Your task to perform on an android device: add a contact Image 0: 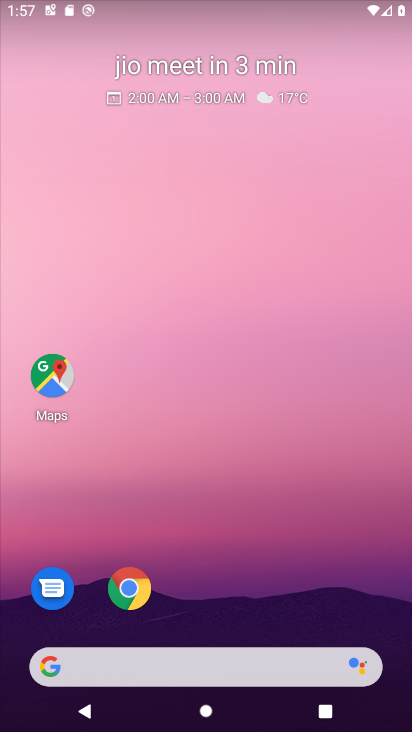
Step 0: drag from (206, 483) to (229, 8)
Your task to perform on an android device: add a contact Image 1: 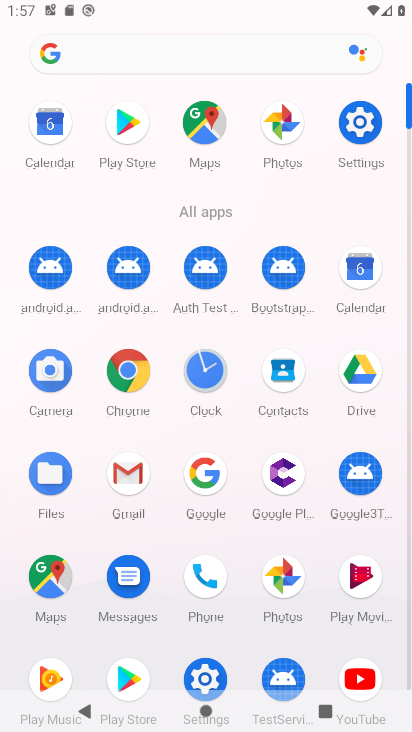
Step 1: click (279, 378)
Your task to perform on an android device: add a contact Image 2: 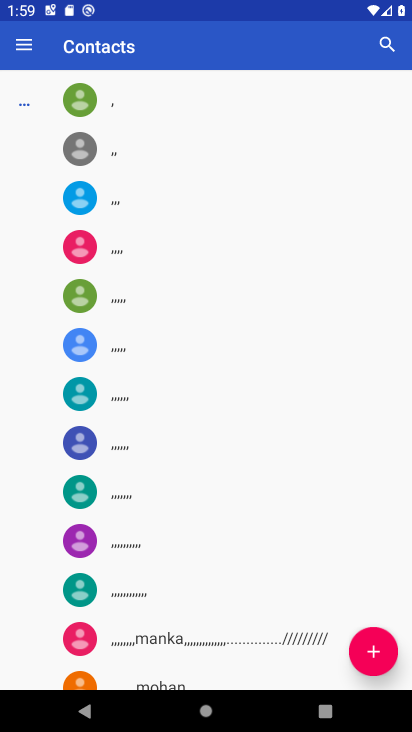
Step 2: click (381, 646)
Your task to perform on an android device: add a contact Image 3: 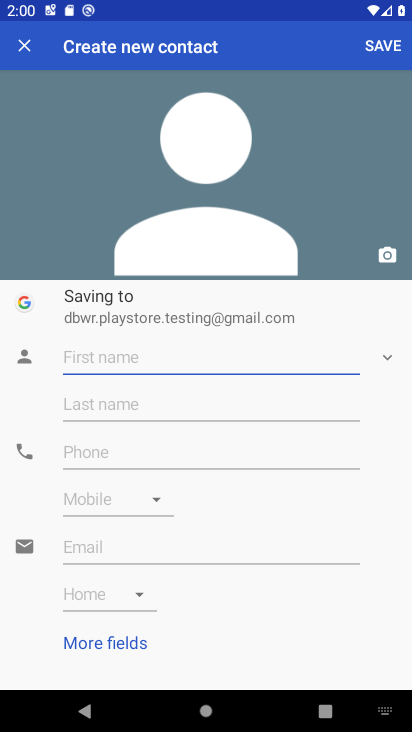
Step 3: type "bkhb"
Your task to perform on an android device: add a contact Image 4: 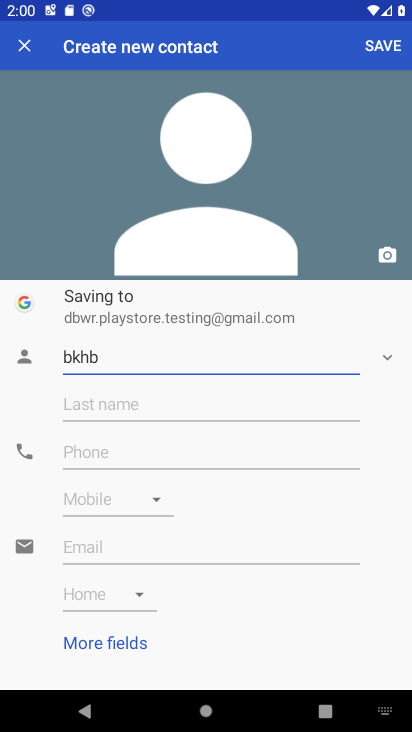
Step 4: click (215, 458)
Your task to perform on an android device: add a contact Image 5: 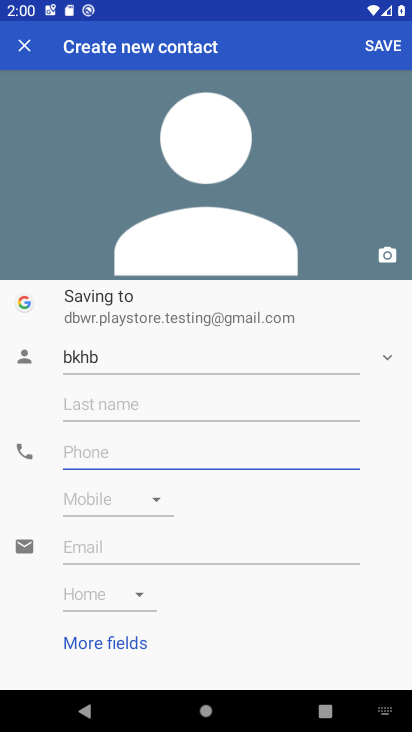
Step 5: type "899"
Your task to perform on an android device: add a contact Image 6: 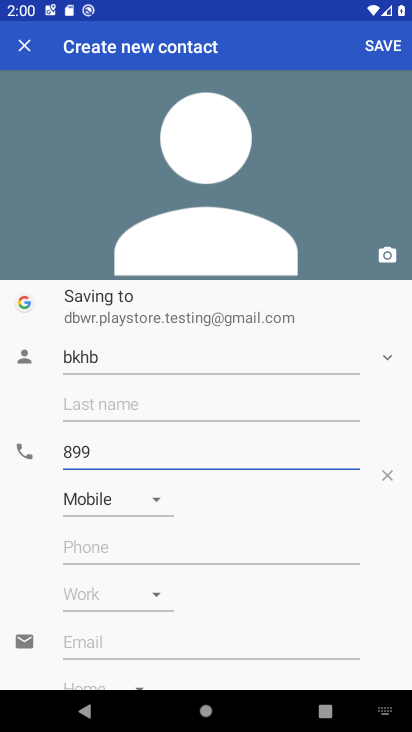
Step 6: click (362, 38)
Your task to perform on an android device: add a contact Image 7: 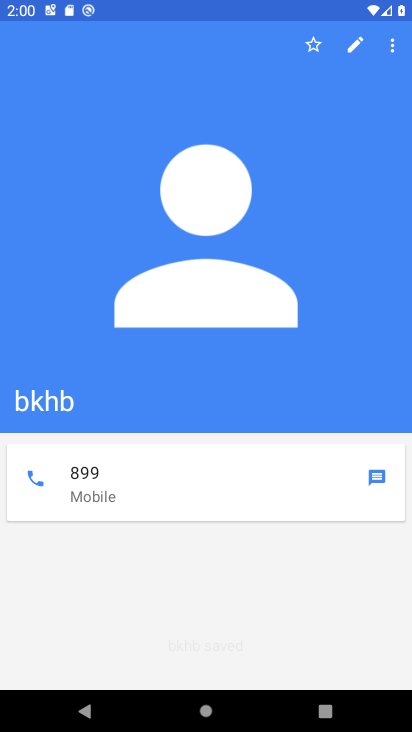
Step 7: task complete